Your task to perform on an android device: turn pop-ups on in chrome Image 0: 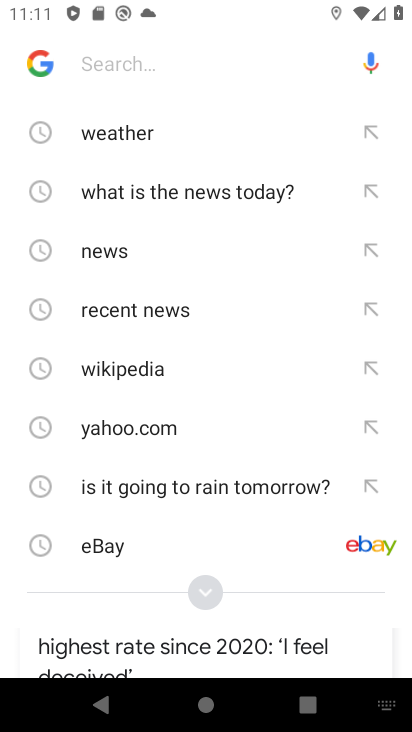
Step 0: press home button
Your task to perform on an android device: turn pop-ups on in chrome Image 1: 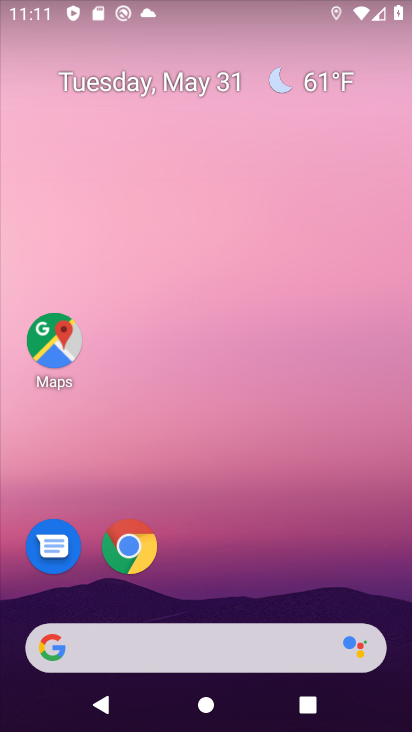
Step 1: drag from (208, 569) to (335, 14)
Your task to perform on an android device: turn pop-ups on in chrome Image 2: 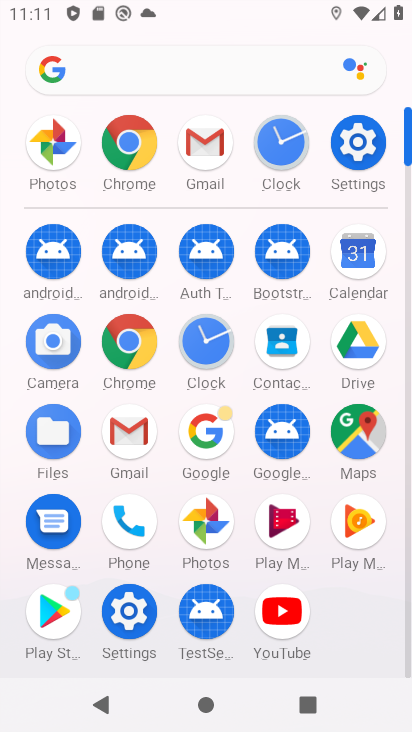
Step 2: click (135, 183)
Your task to perform on an android device: turn pop-ups on in chrome Image 3: 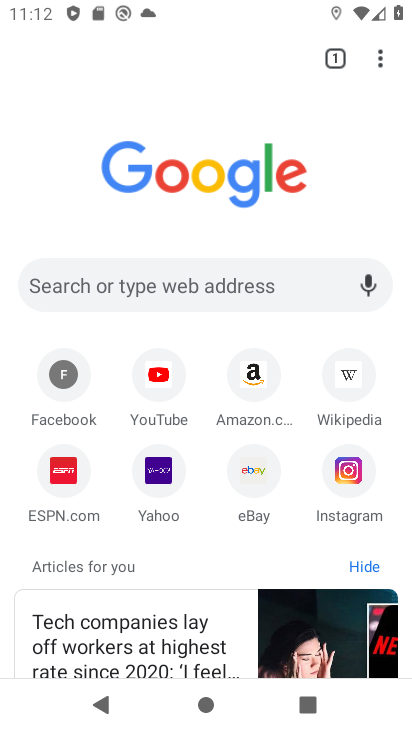
Step 3: click (373, 58)
Your task to perform on an android device: turn pop-ups on in chrome Image 4: 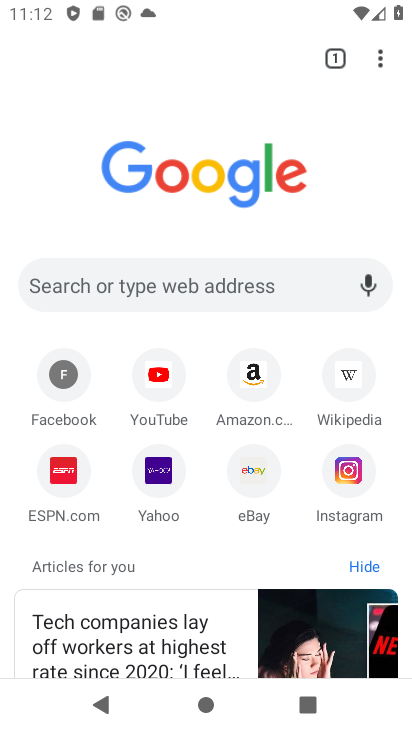
Step 4: drag from (380, 56) to (191, 486)
Your task to perform on an android device: turn pop-ups on in chrome Image 5: 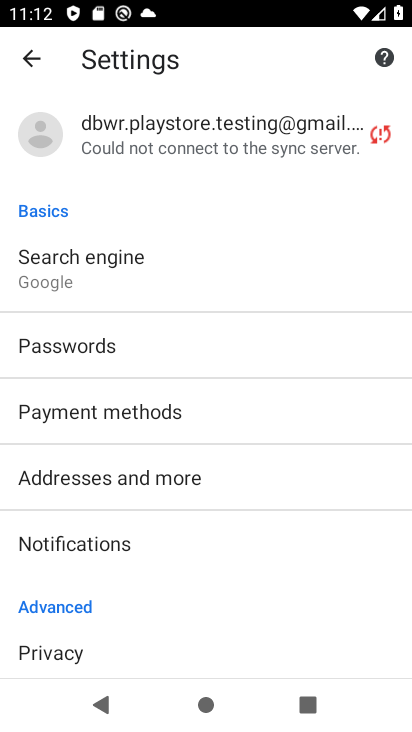
Step 5: drag from (89, 615) to (99, 162)
Your task to perform on an android device: turn pop-ups on in chrome Image 6: 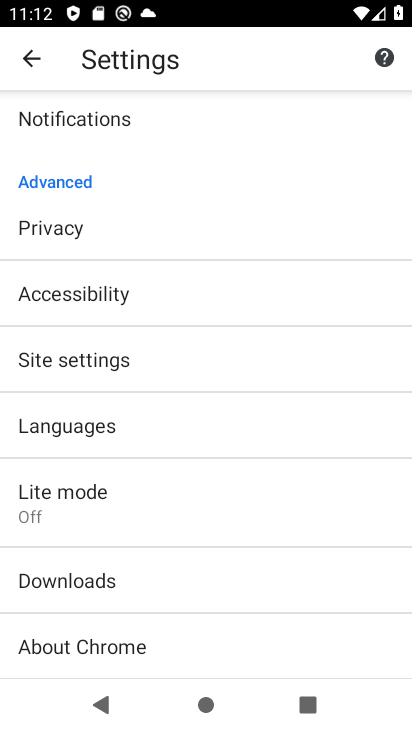
Step 6: click (63, 365)
Your task to perform on an android device: turn pop-ups on in chrome Image 7: 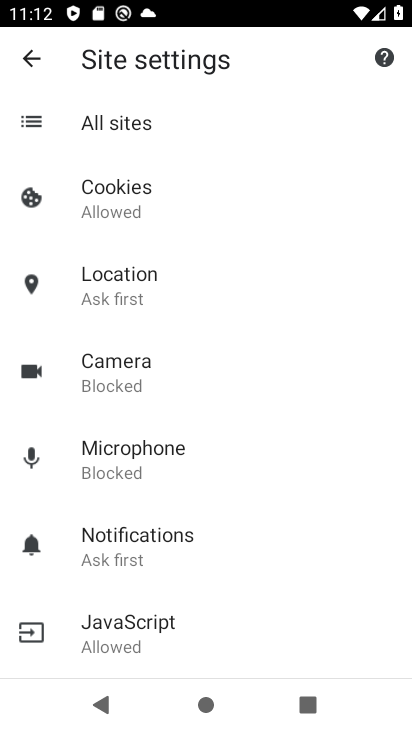
Step 7: drag from (190, 477) to (202, 202)
Your task to perform on an android device: turn pop-ups on in chrome Image 8: 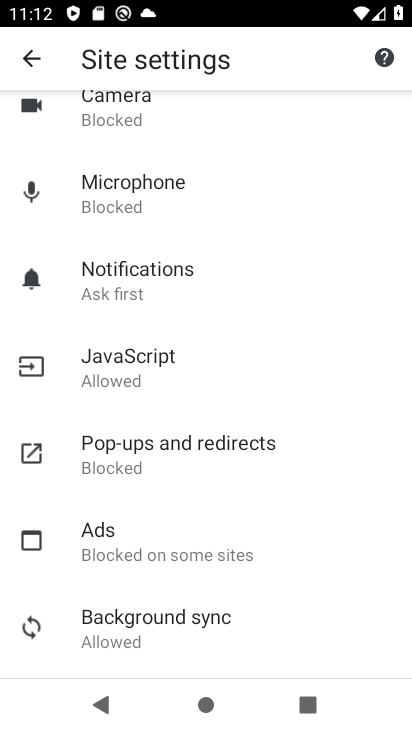
Step 8: click (149, 432)
Your task to perform on an android device: turn pop-ups on in chrome Image 9: 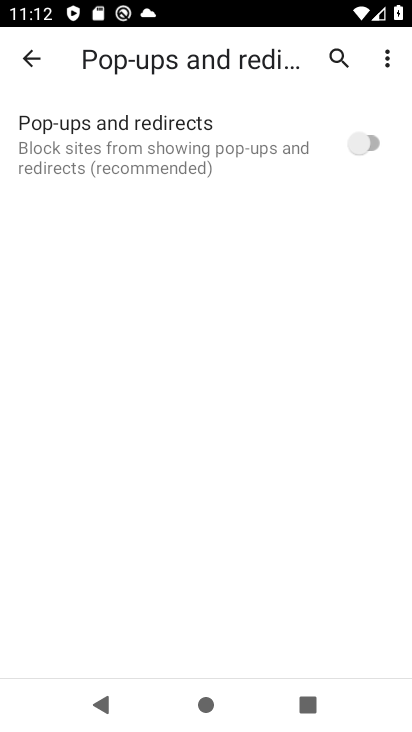
Step 9: click (380, 138)
Your task to perform on an android device: turn pop-ups on in chrome Image 10: 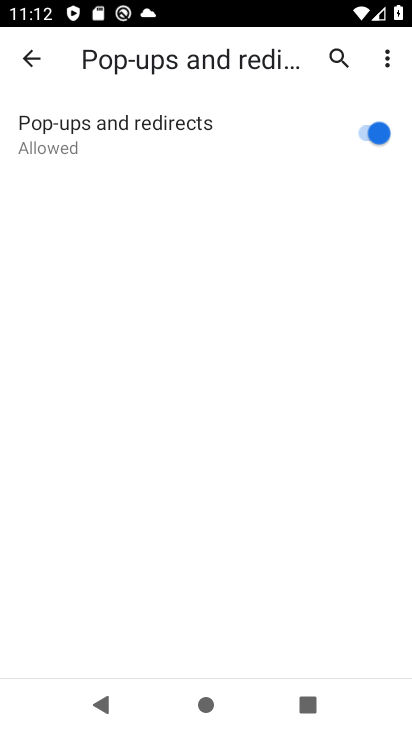
Step 10: task complete